Your task to perform on an android device: Open Google Chrome Image 0: 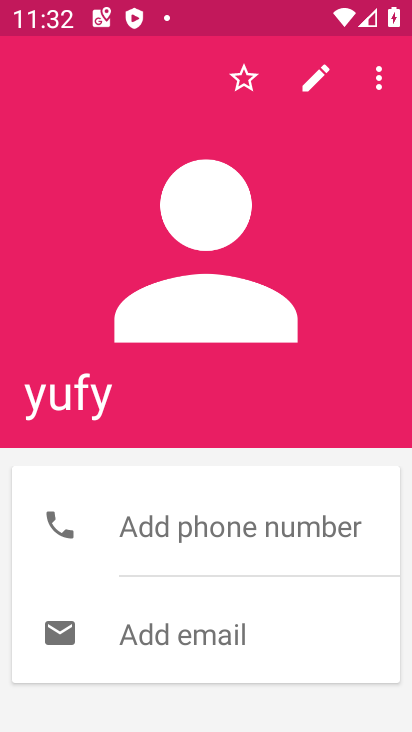
Step 0: press home button
Your task to perform on an android device: Open Google Chrome Image 1: 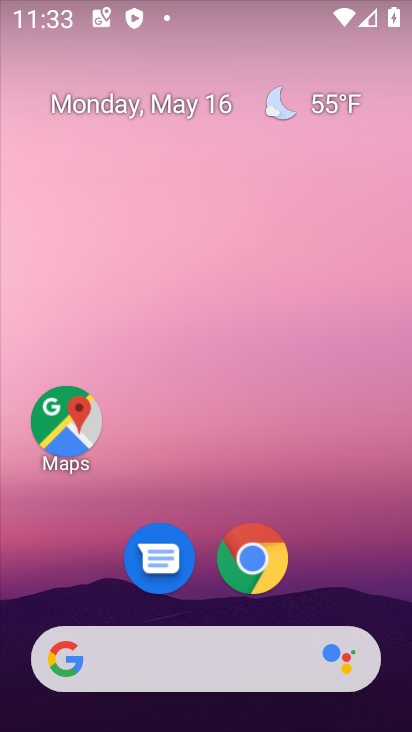
Step 1: click (249, 551)
Your task to perform on an android device: Open Google Chrome Image 2: 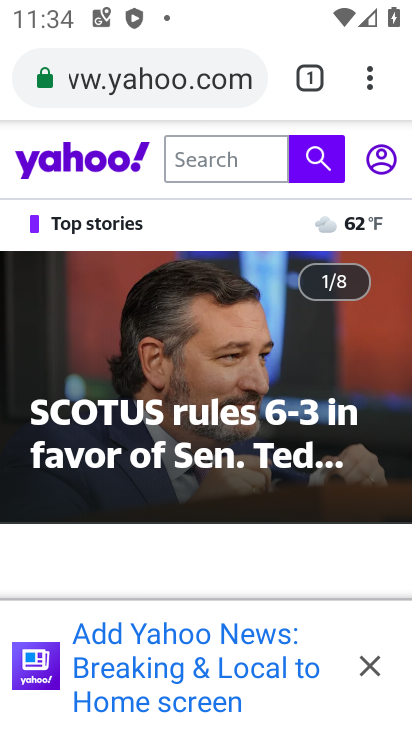
Step 2: task complete